Your task to perform on an android device: change your default location settings in chrome Image 0: 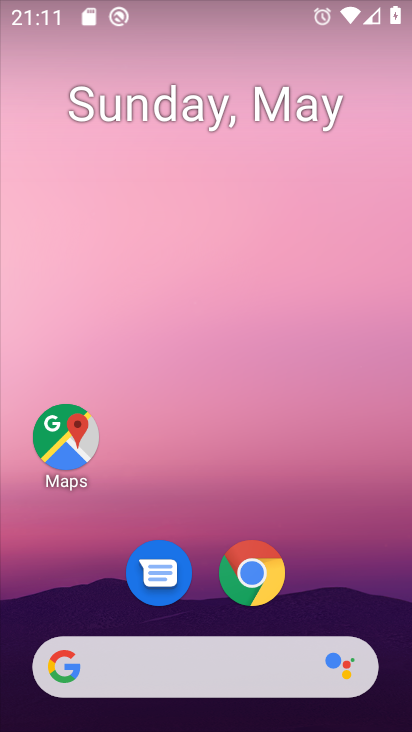
Step 0: click (258, 575)
Your task to perform on an android device: change your default location settings in chrome Image 1: 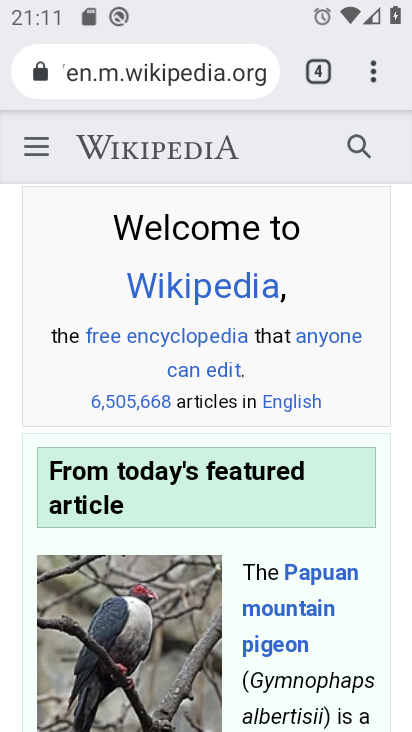
Step 1: click (369, 65)
Your task to perform on an android device: change your default location settings in chrome Image 2: 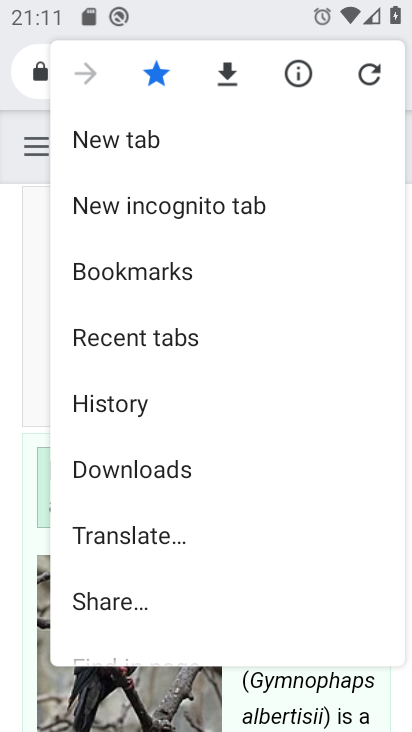
Step 2: drag from (193, 510) to (257, 196)
Your task to perform on an android device: change your default location settings in chrome Image 3: 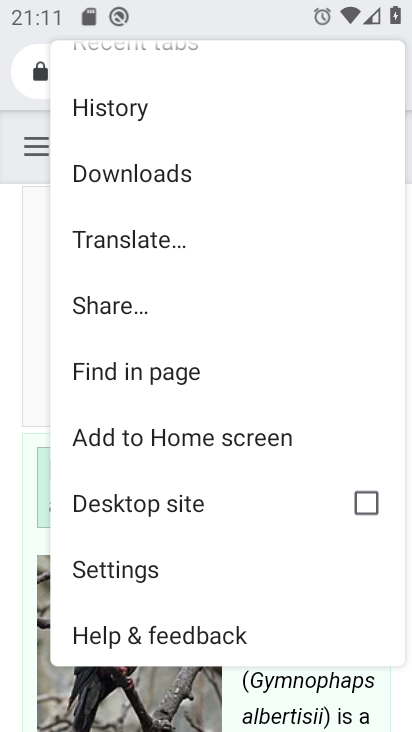
Step 3: click (156, 570)
Your task to perform on an android device: change your default location settings in chrome Image 4: 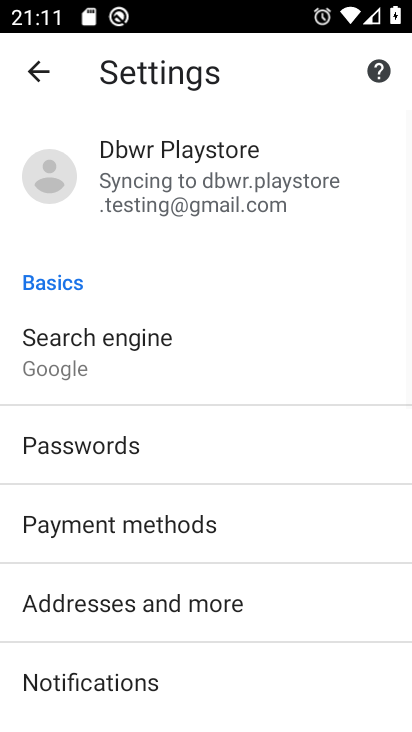
Step 4: drag from (231, 497) to (227, 106)
Your task to perform on an android device: change your default location settings in chrome Image 5: 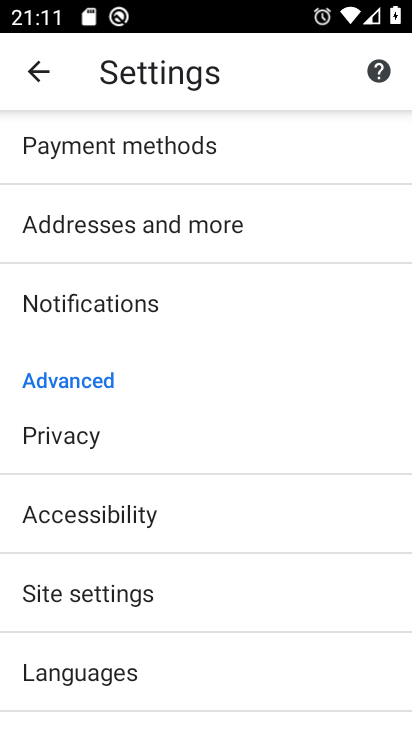
Step 5: click (168, 584)
Your task to perform on an android device: change your default location settings in chrome Image 6: 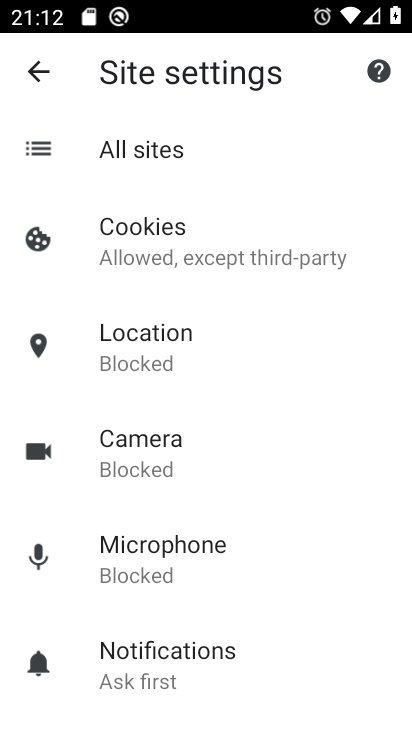
Step 6: click (171, 350)
Your task to perform on an android device: change your default location settings in chrome Image 7: 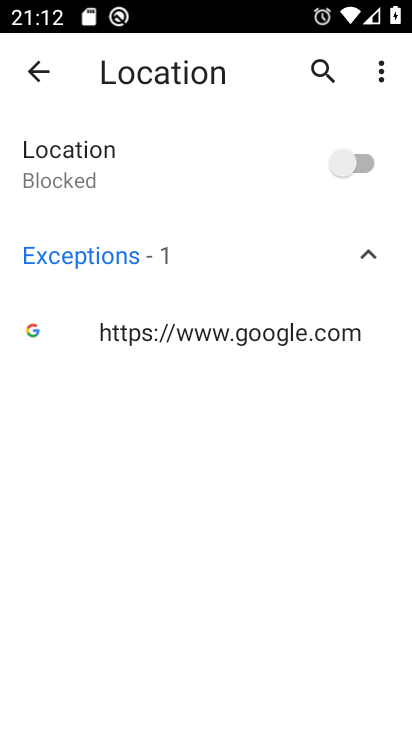
Step 7: click (350, 158)
Your task to perform on an android device: change your default location settings in chrome Image 8: 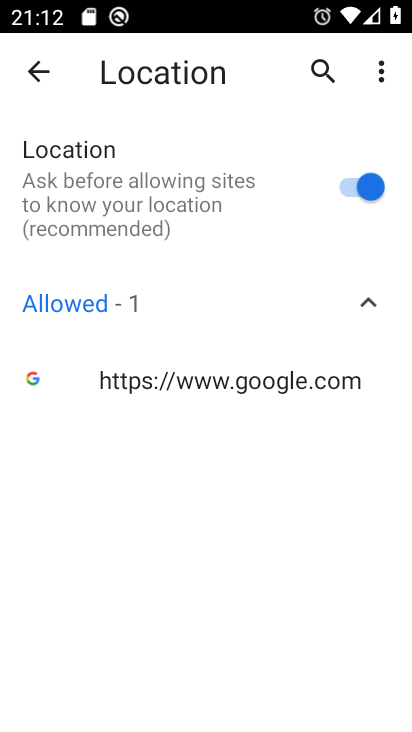
Step 8: task complete